Your task to perform on an android device: Find coffee shops on Maps Image 0: 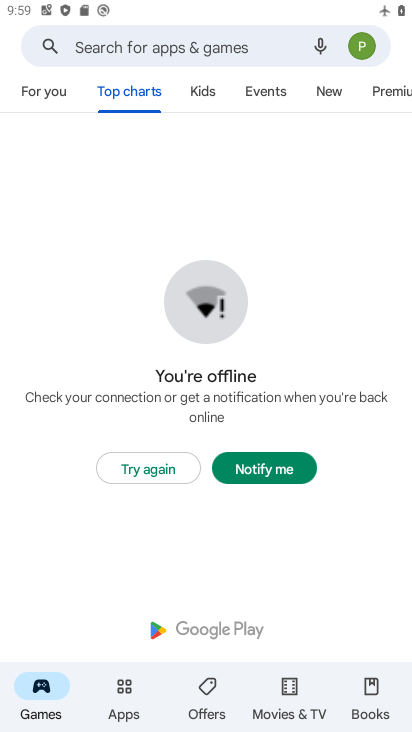
Step 0: press home button
Your task to perform on an android device: Find coffee shops on Maps Image 1: 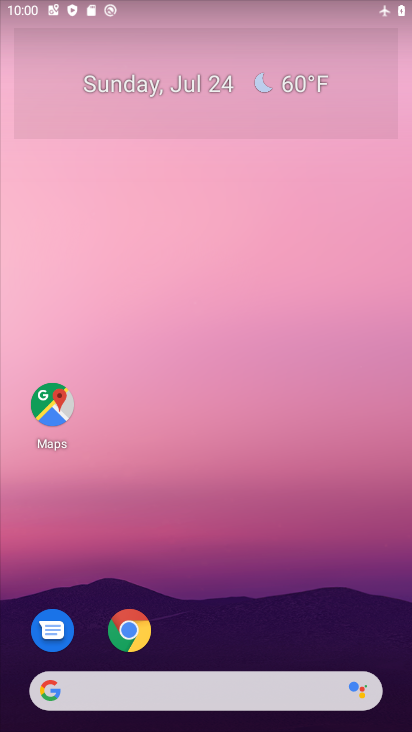
Step 1: drag from (196, 642) to (244, 116)
Your task to perform on an android device: Find coffee shops on Maps Image 2: 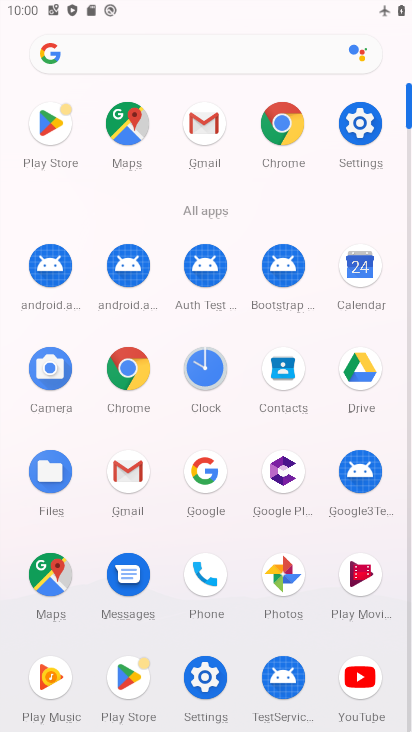
Step 2: click (56, 575)
Your task to perform on an android device: Find coffee shops on Maps Image 3: 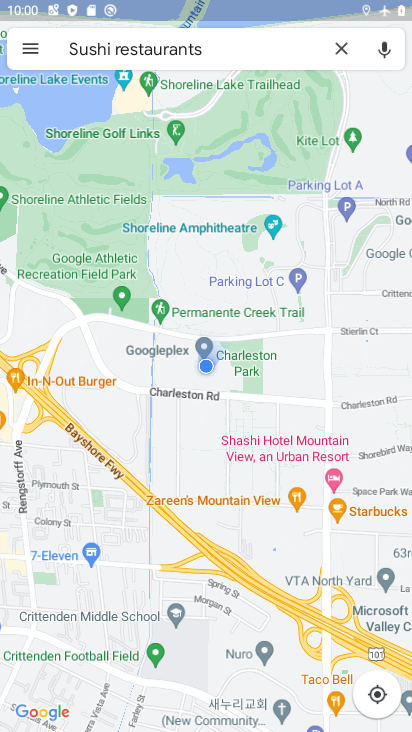
Step 3: click (338, 48)
Your task to perform on an android device: Find coffee shops on Maps Image 4: 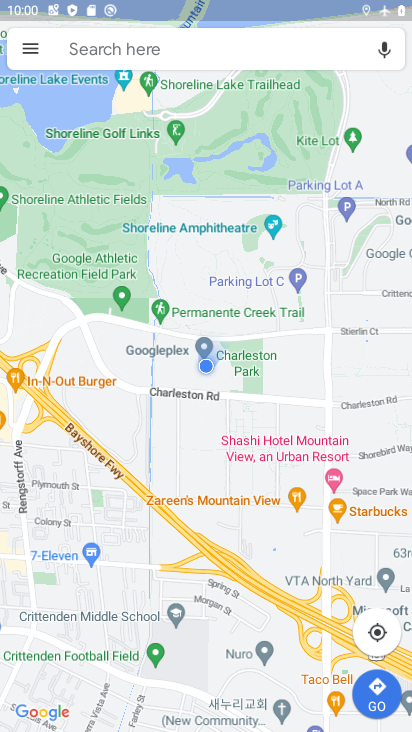
Step 4: click (226, 50)
Your task to perform on an android device: Find coffee shops on Maps Image 5: 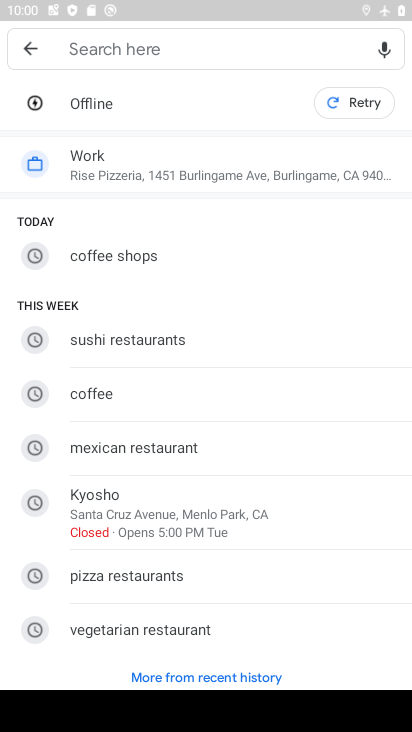
Step 5: type "coffee shops"
Your task to perform on an android device: Find coffee shops on Maps Image 6: 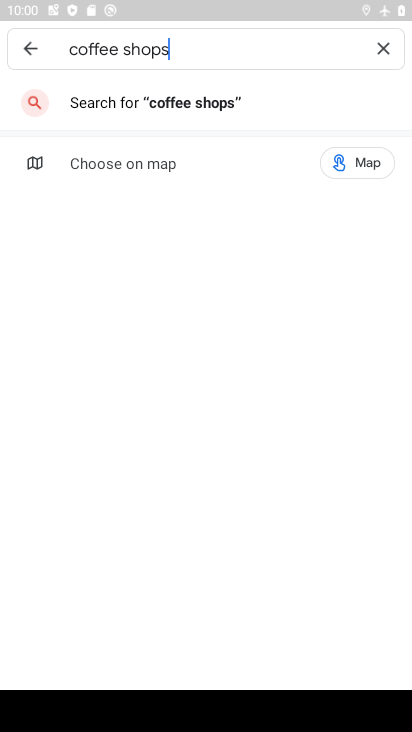
Step 6: click (221, 97)
Your task to perform on an android device: Find coffee shops on Maps Image 7: 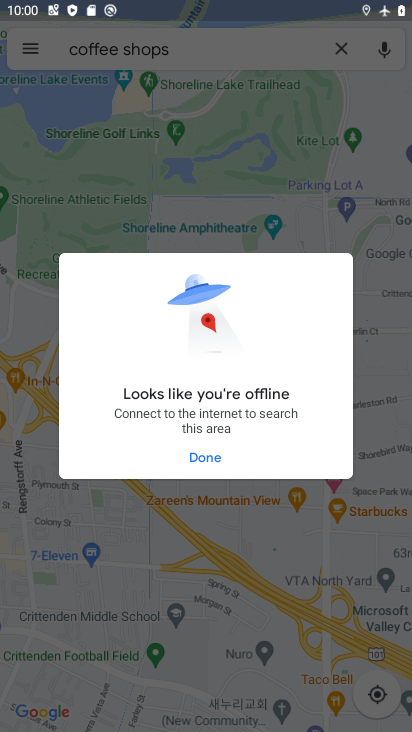
Step 7: click (231, 463)
Your task to perform on an android device: Find coffee shops on Maps Image 8: 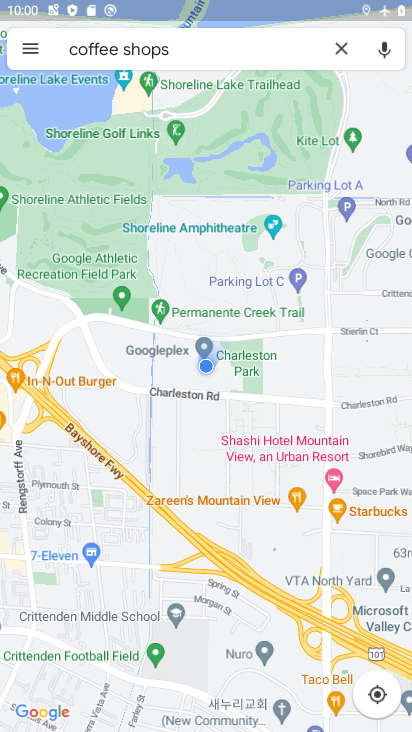
Step 8: task complete